Your task to perform on an android device: When is my next appointment? Image 0: 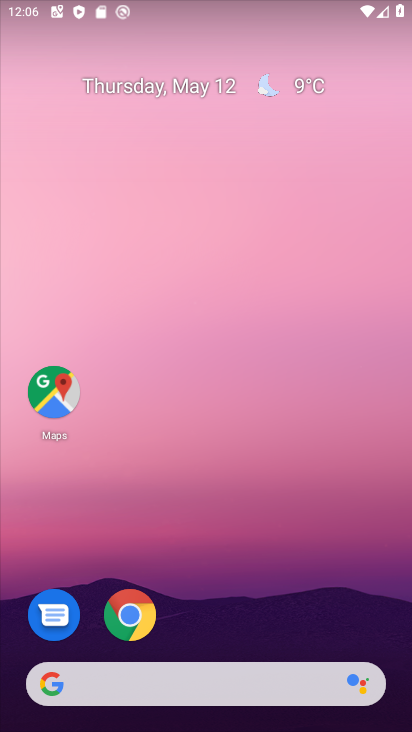
Step 0: drag from (269, 558) to (221, 0)
Your task to perform on an android device: When is my next appointment? Image 1: 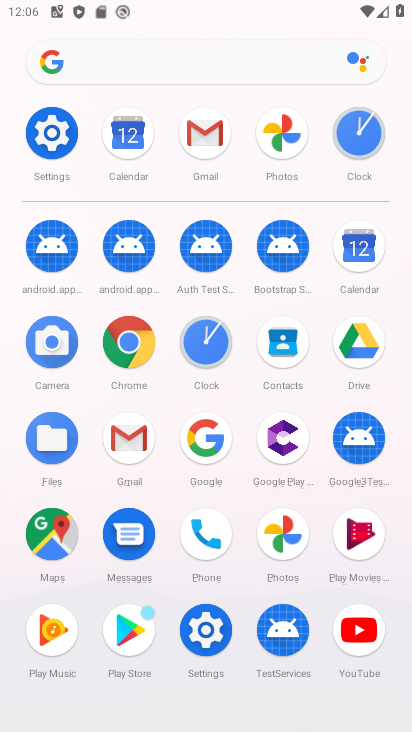
Step 1: click (377, 246)
Your task to perform on an android device: When is my next appointment? Image 2: 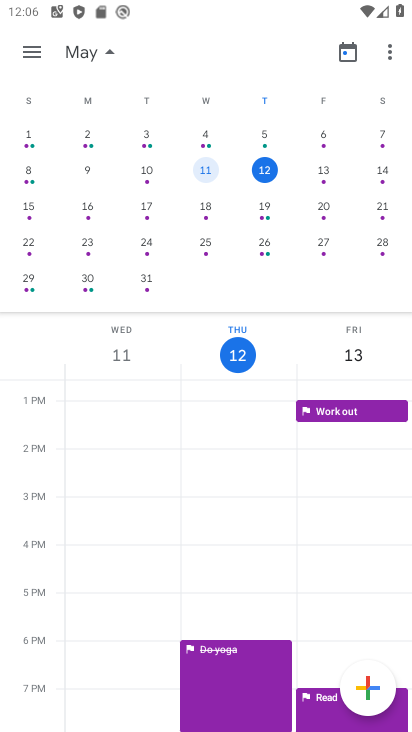
Step 2: task complete